Your task to perform on an android device: Search for vegetarian restaurants on Maps Image 0: 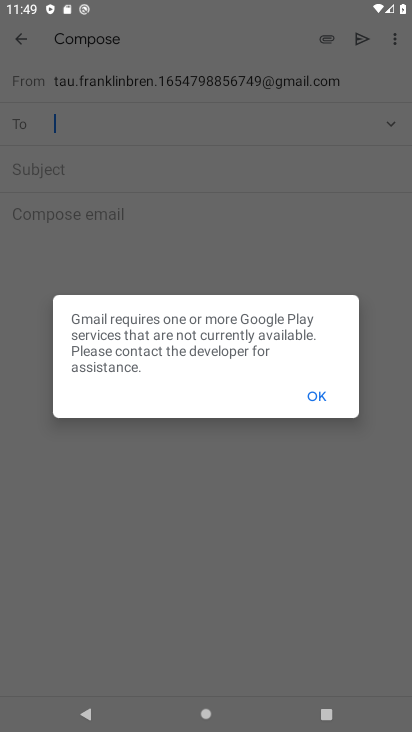
Step 0: press home button
Your task to perform on an android device: Search for vegetarian restaurants on Maps Image 1: 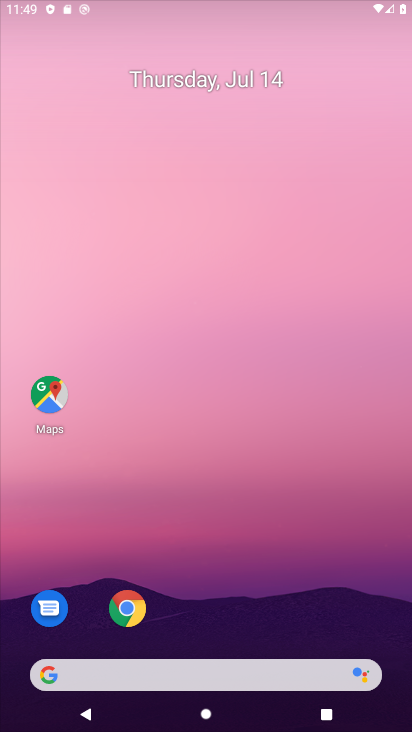
Step 1: drag from (354, 625) to (261, 43)
Your task to perform on an android device: Search for vegetarian restaurants on Maps Image 2: 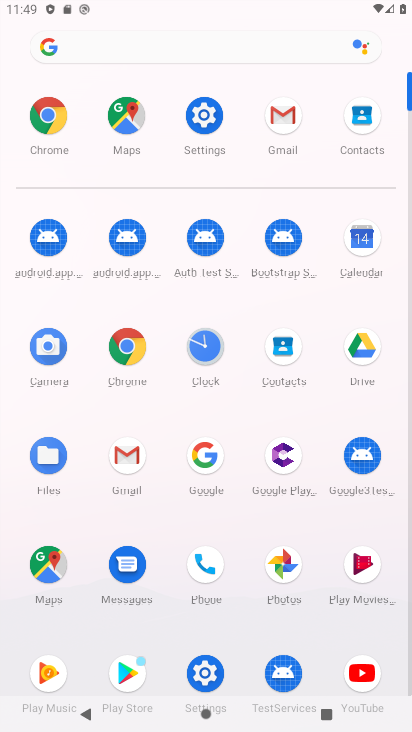
Step 2: click (37, 568)
Your task to perform on an android device: Search for vegetarian restaurants on Maps Image 3: 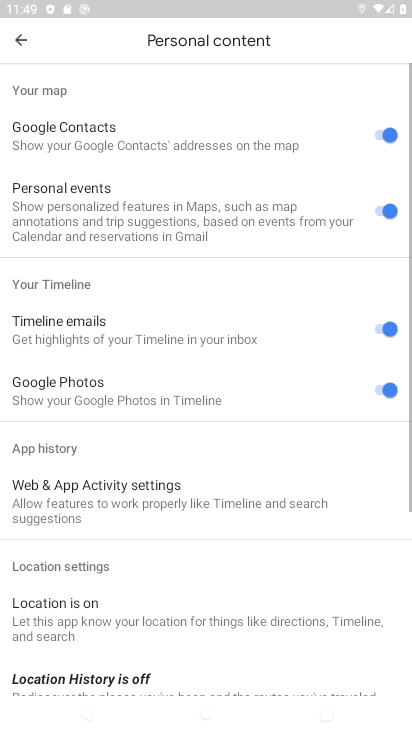
Step 3: press back button
Your task to perform on an android device: Search for vegetarian restaurants on Maps Image 4: 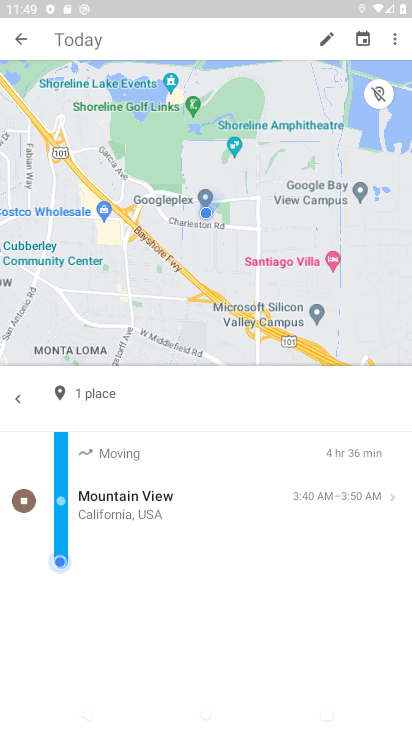
Step 4: press back button
Your task to perform on an android device: Search for vegetarian restaurants on Maps Image 5: 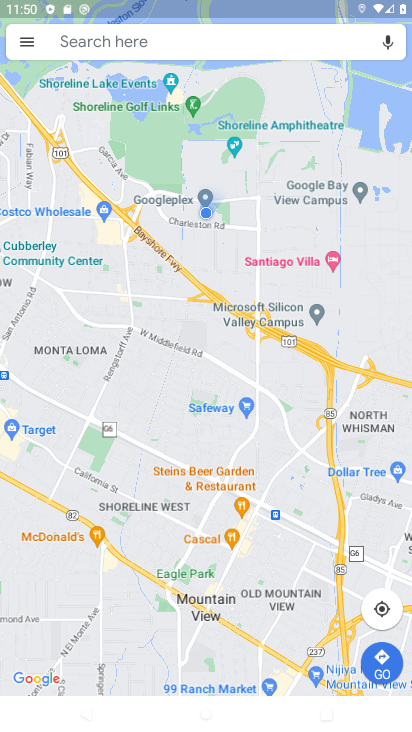
Step 5: click (215, 49)
Your task to perform on an android device: Search for vegetarian restaurants on Maps Image 6: 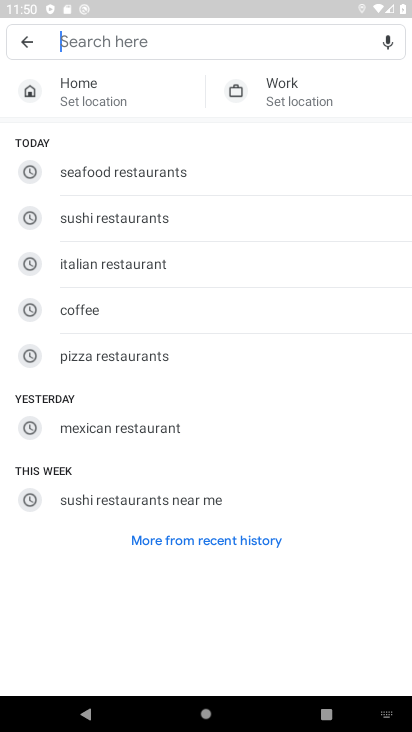
Step 6: type "vegetarian restaurant"
Your task to perform on an android device: Search for vegetarian restaurants on Maps Image 7: 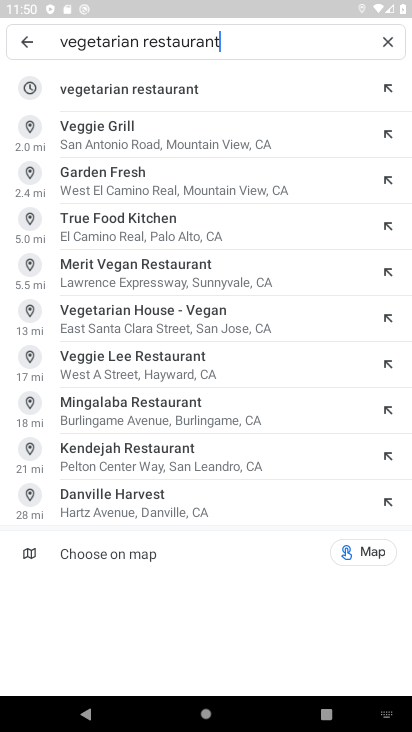
Step 7: click (220, 99)
Your task to perform on an android device: Search for vegetarian restaurants on Maps Image 8: 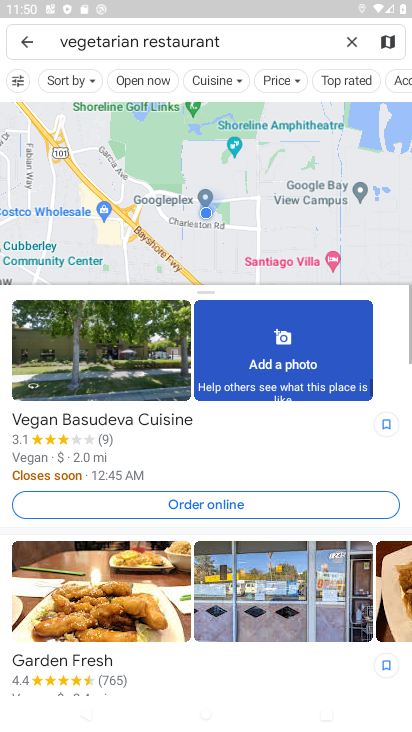
Step 8: task complete